Your task to perform on an android device: change keyboard looks Image 0: 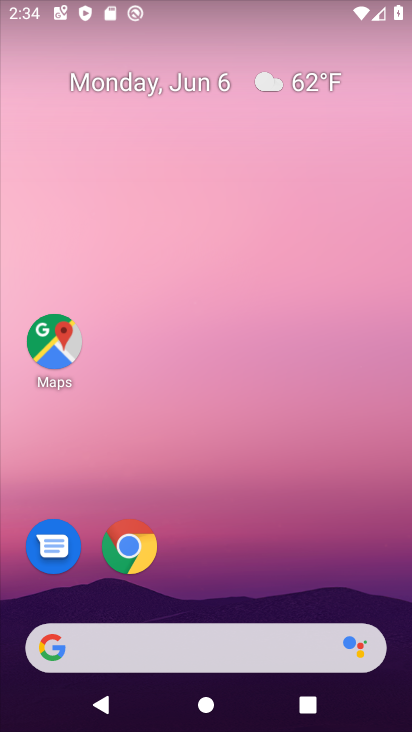
Step 0: drag from (202, 464) to (213, 192)
Your task to perform on an android device: change keyboard looks Image 1: 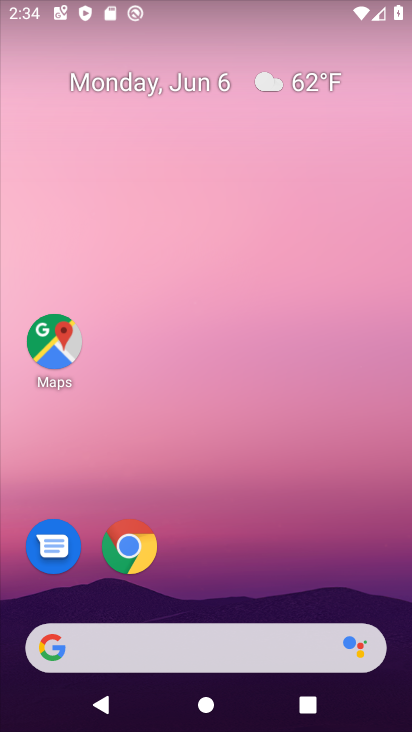
Step 1: drag from (198, 591) to (237, 183)
Your task to perform on an android device: change keyboard looks Image 2: 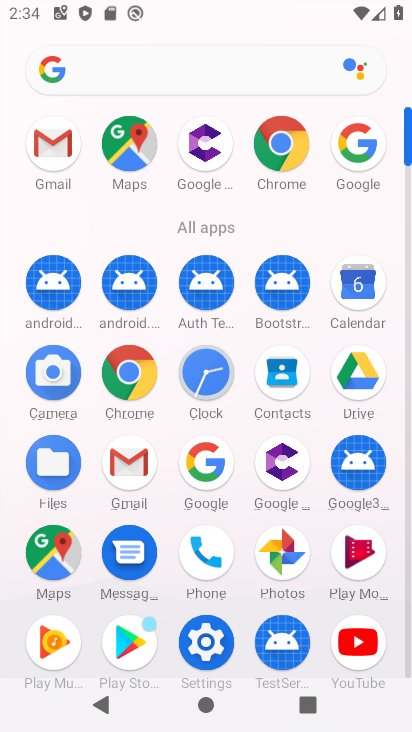
Step 2: click (211, 651)
Your task to perform on an android device: change keyboard looks Image 3: 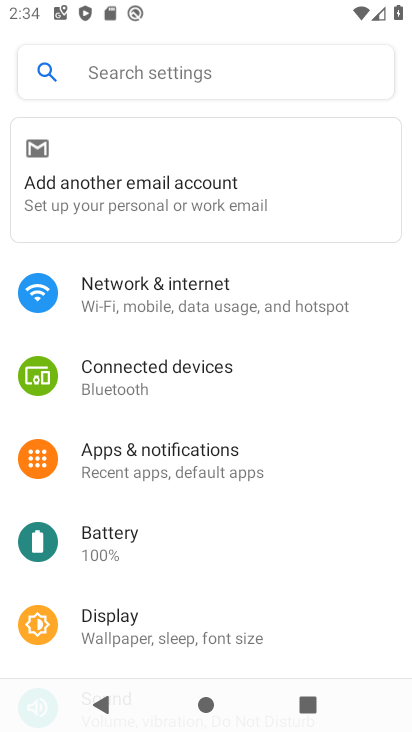
Step 3: drag from (183, 623) to (204, 166)
Your task to perform on an android device: change keyboard looks Image 4: 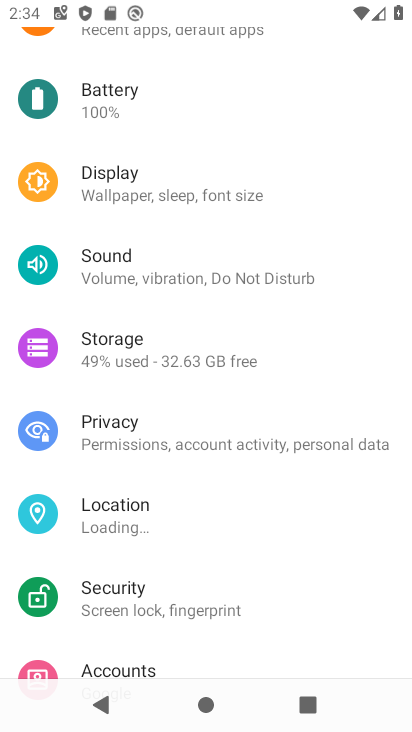
Step 4: drag from (200, 535) to (224, 171)
Your task to perform on an android device: change keyboard looks Image 5: 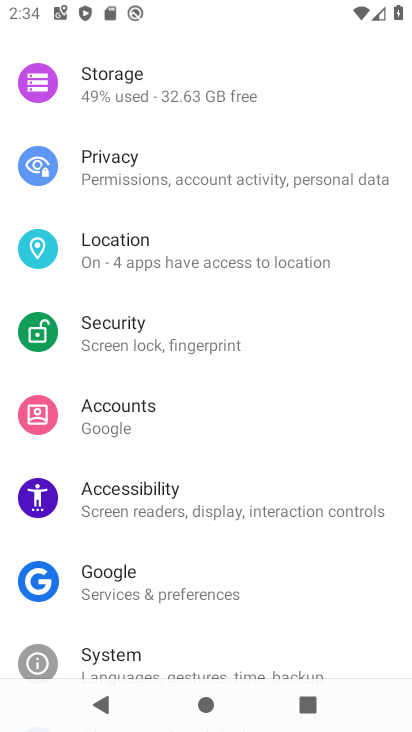
Step 5: drag from (230, 533) to (246, 202)
Your task to perform on an android device: change keyboard looks Image 6: 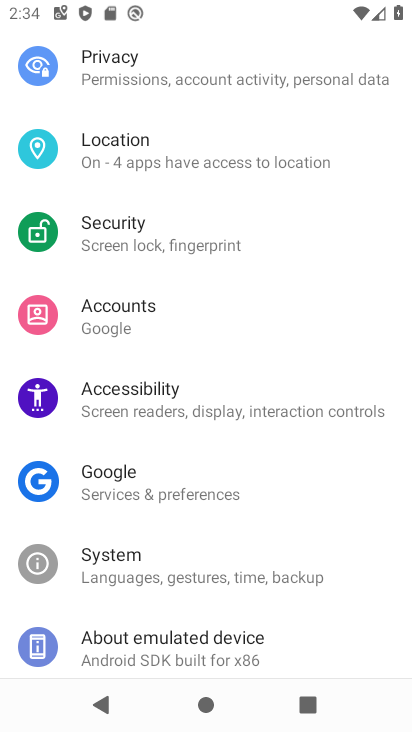
Step 6: drag from (213, 535) to (223, 203)
Your task to perform on an android device: change keyboard looks Image 7: 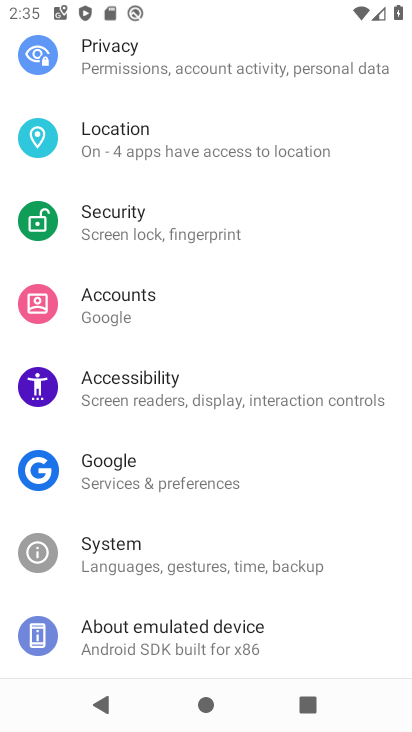
Step 7: click (172, 547)
Your task to perform on an android device: change keyboard looks Image 8: 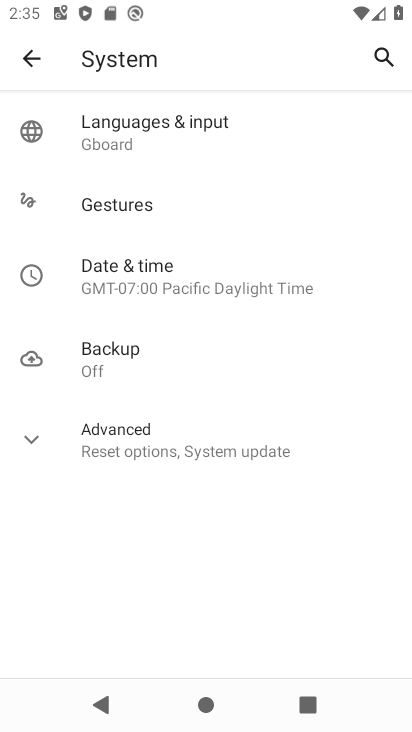
Step 8: click (151, 426)
Your task to perform on an android device: change keyboard looks Image 9: 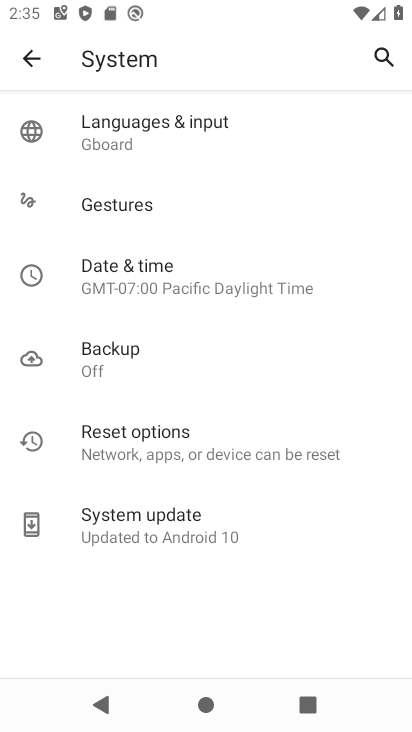
Step 9: click (179, 144)
Your task to perform on an android device: change keyboard looks Image 10: 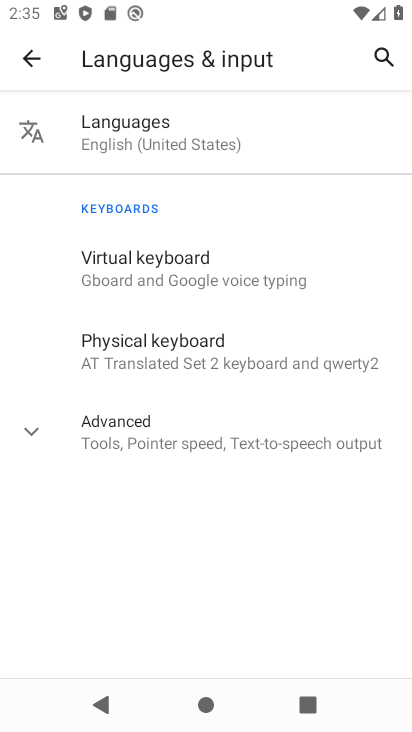
Step 10: click (174, 251)
Your task to perform on an android device: change keyboard looks Image 11: 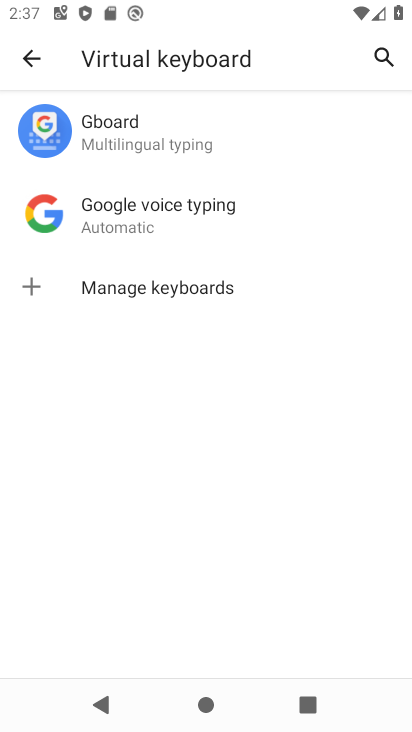
Step 11: click (154, 147)
Your task to perform on an android device: change keyboard looks Image 12: 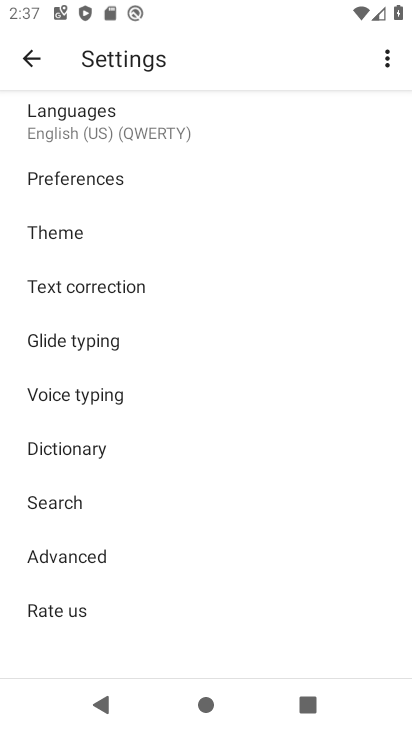
Step 12: click (67, 228)
Your task to perform on an android device: change keyboard looks Image 13: 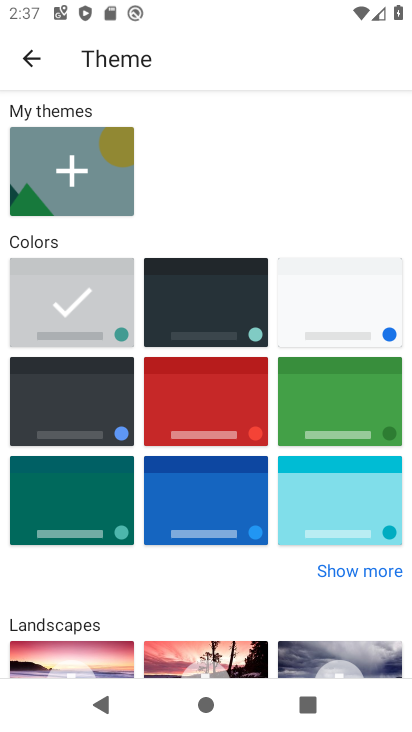
Step 13: click (205, 296)
Your task to perform on an android device: change keyboard looks Image 14: 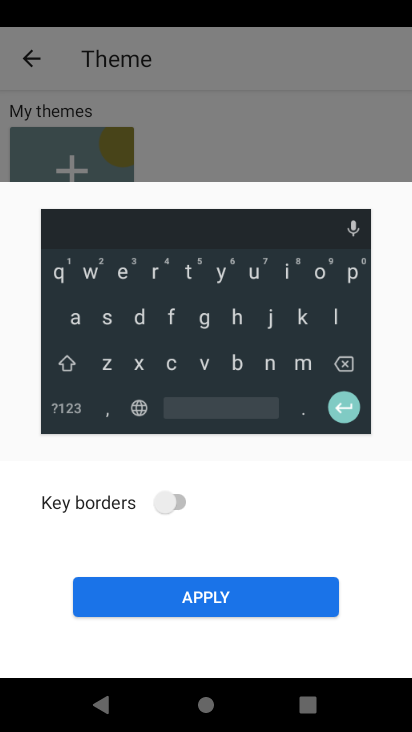
Step 14: click (302, 586)
Your task to perform on an android device: change keyboard looks Image 15: 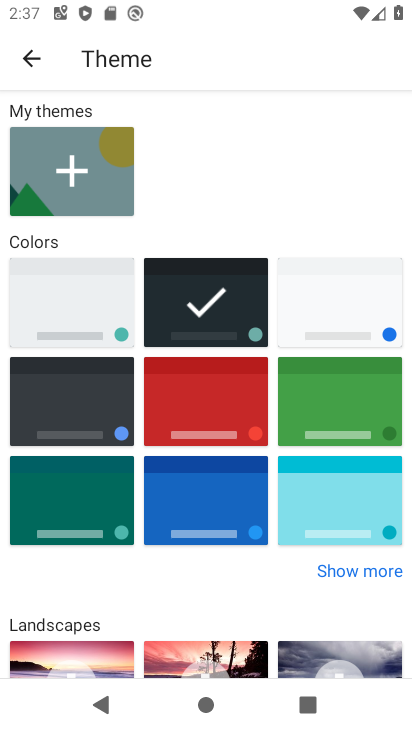
Step 15: task complete